Your task to perform on an android device: Open battery settings Image 0: 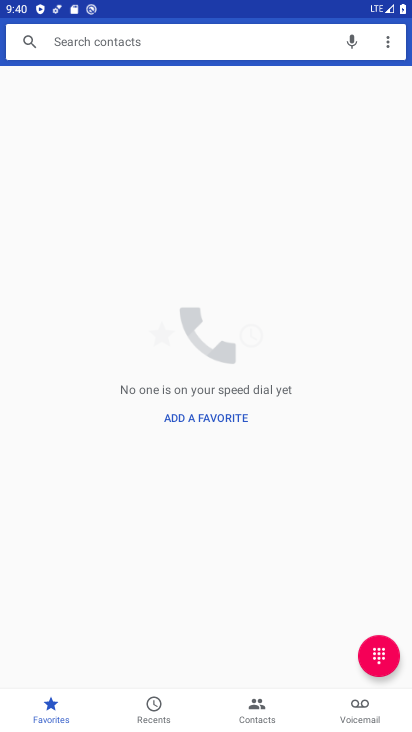
Step 0: press home button
Your task to perform on an android device: Open battery settings Image 1: 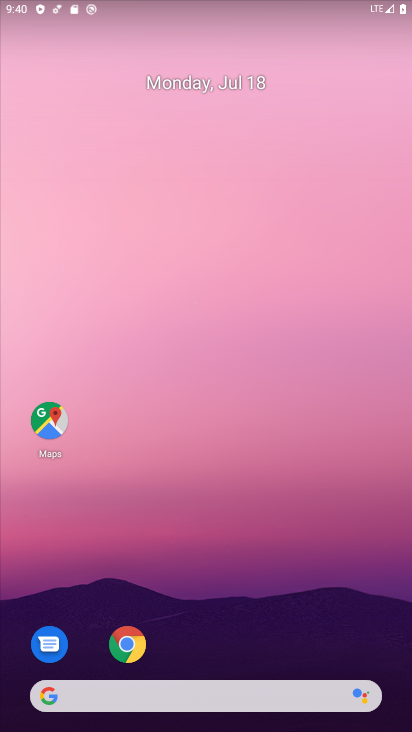
Step 1: drag from (316, 561) to (338, 78)
Your task to perform on an android device: Open battery settings Image 2: 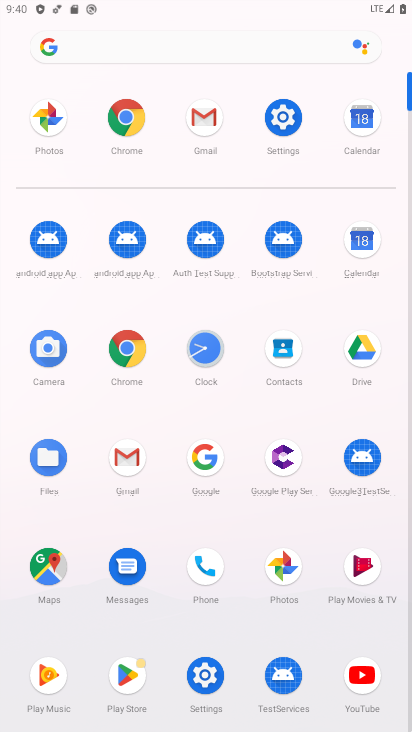
Step 2: click (285, 127)
Your task to perform on an android device: Open battery settings Image 3: 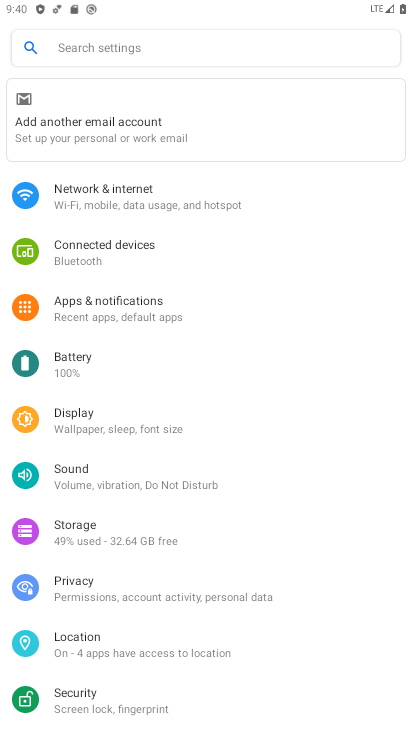
Step 3: drag from (342, 492) to (325, 385)
Your task to perform on an android device: Open battery settings Image 4: 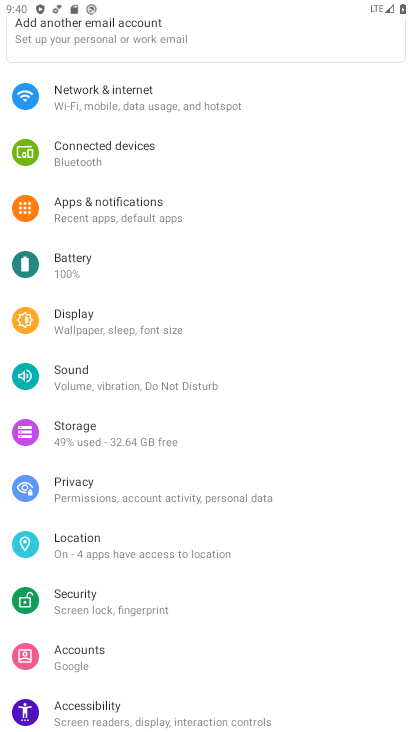
Step 4: drag from (323, 563) to (325, 489)
Your task to perform on an android device: Open battery settings Image 5: 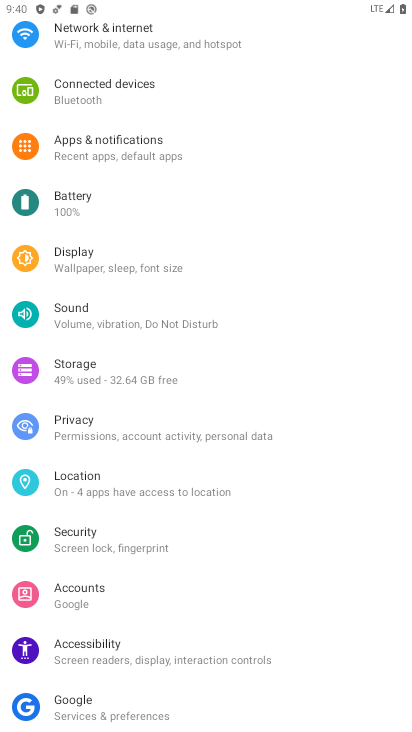
Step 5: drag from (322, 626) to (311, 528)
Your task to perform on an android device: Open battery settings Image 6: 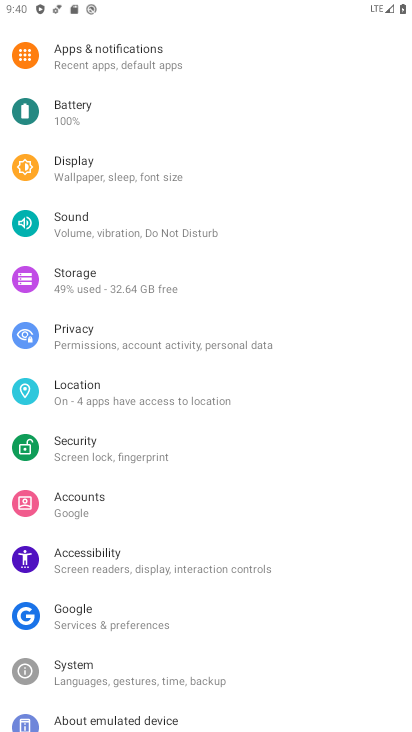
Step 6: drag from (317, 600) to (319, 527)
Your task to perform on an android device: Open battery settings Image 7: 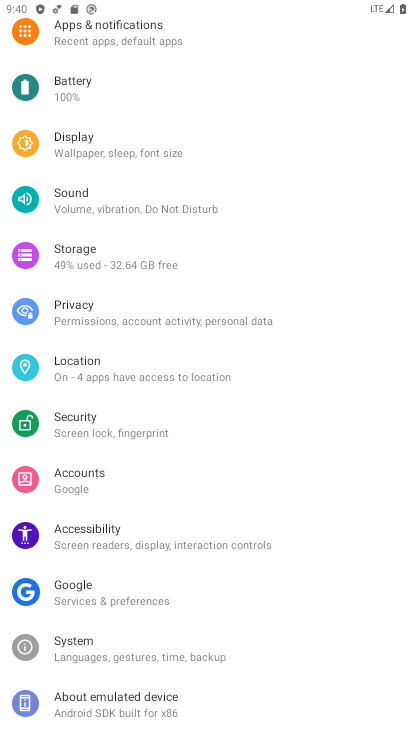
Step 7: drag from (317, 404) to (320, 487)
Your task to perform on an android device: Open battery settings Image 8: 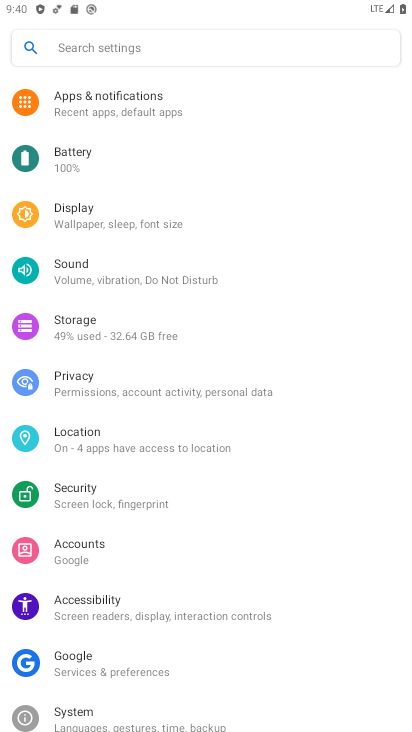
Step 8: drag from (324, 391) to (327, 489)
Your task to perform on an android device: Open battery settings Image 9: 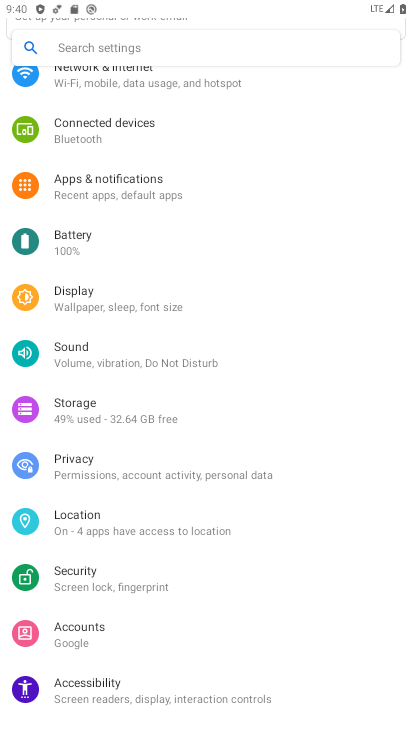
Step 9: drag from (316, 375) to (319, 483)
Your task to perform on an android device: Open battery settings Image 10: 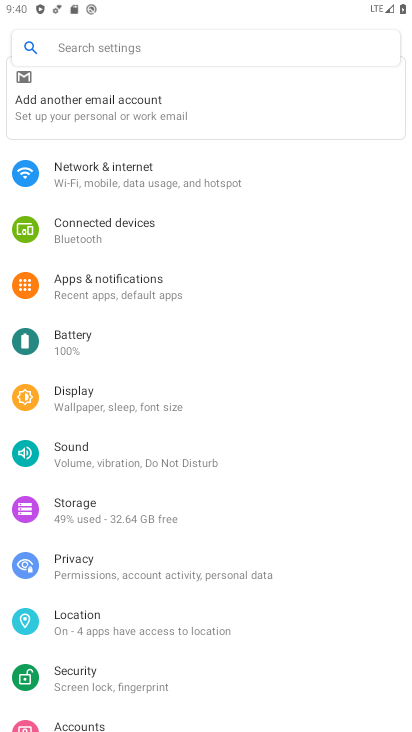
Step 10: drag from (302, 364) to (304, 482)
Your task to perform on an android device: Open battery settings Image 11: 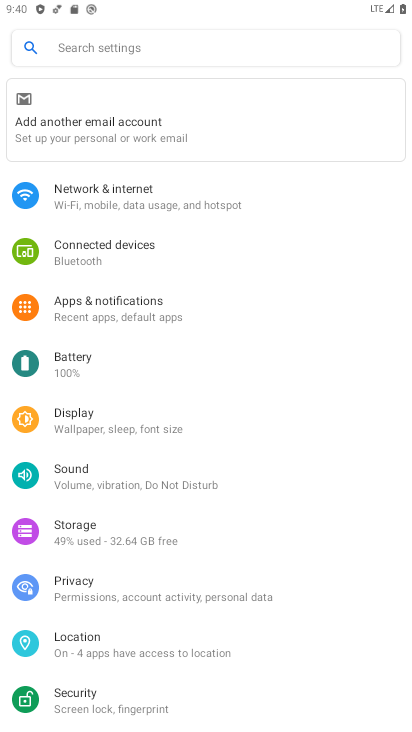
Step 11: click (165, 371)
Your task to perform on an android device: Open battery settings Image 12: 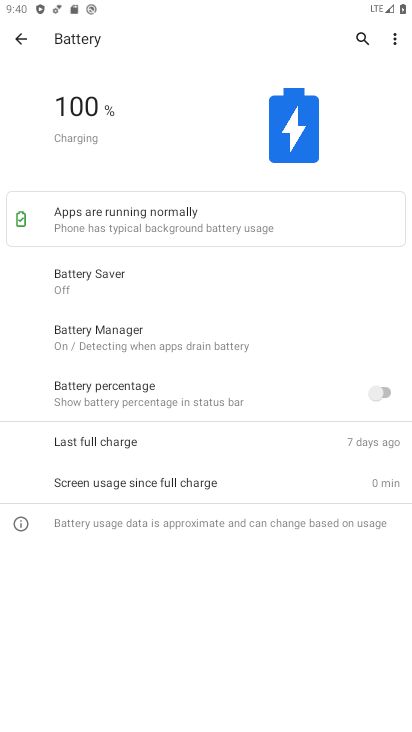
Step 12: task complete